Your task to perform on an android device: open app "HBO Max: Stream TV & Movies" (install if not already installed) and enter user name: "faring@outlook.com" and password: "appropriately" Image 0: 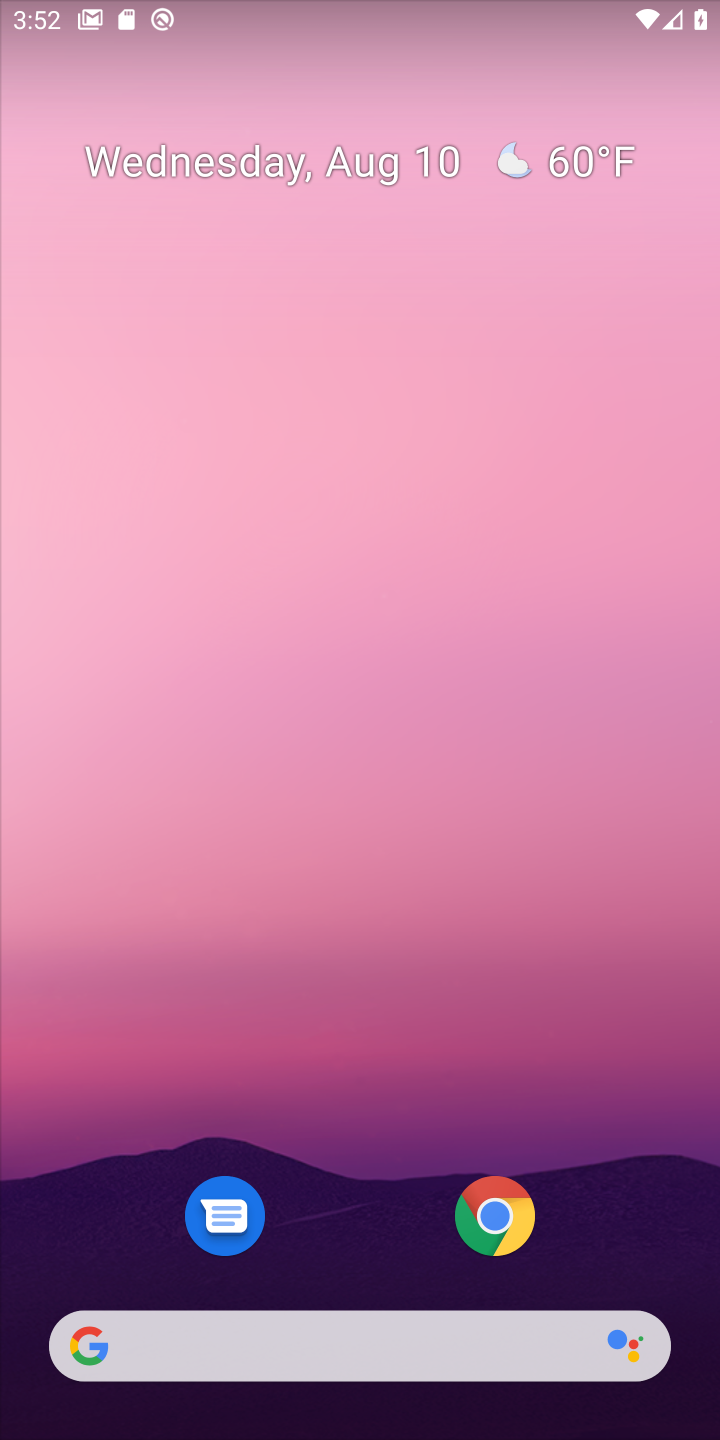
Step 0: drag from (396, 286) to (701, 723)
Your task to perform on an android device: open app "HBO Max: Stream TV & Movies" (install if not already installed) and enter user name: "faring@outlook.com" and password: "appropriately" Image 1: 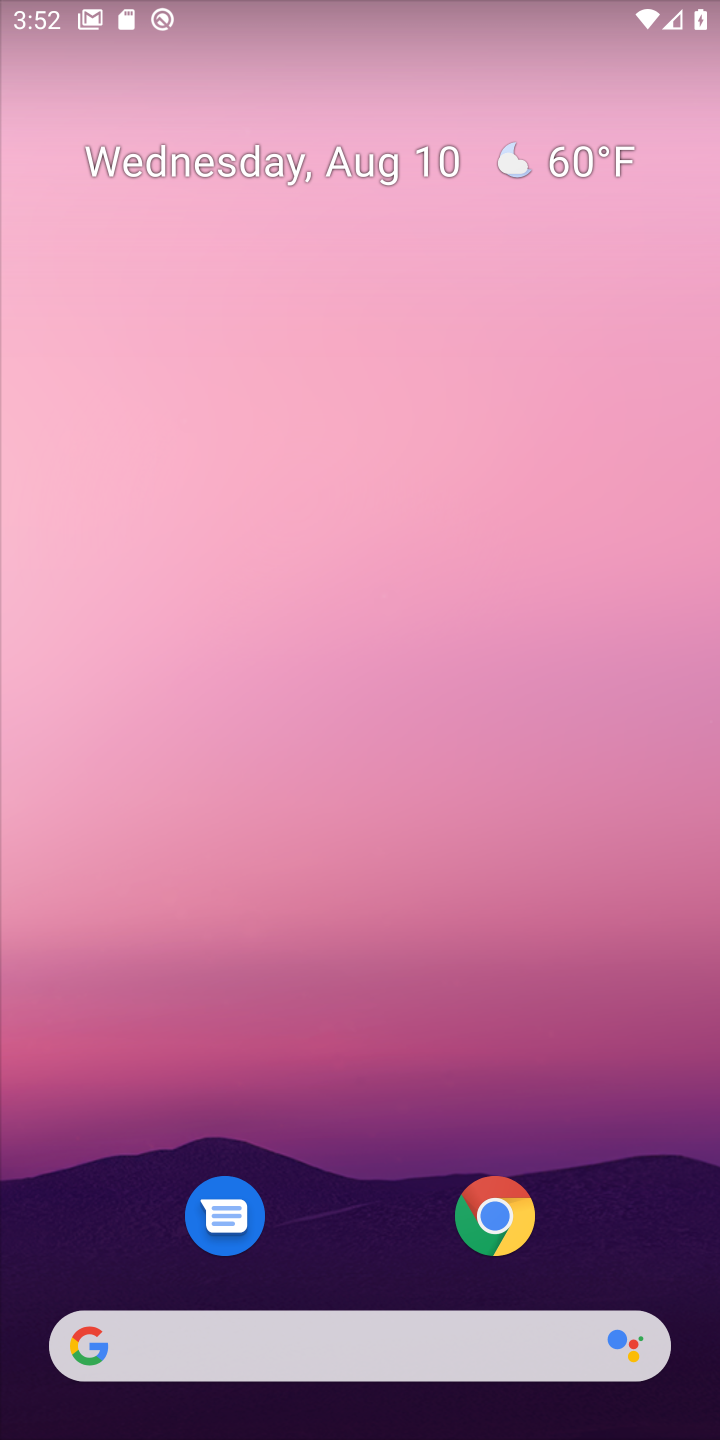
Step 1: drag from (364, 1292) to (709, 859)
Your task to perform on an android device: open app "HBO Max: Stream TV & Movies" (install if not already installed) and enter user name: "faring@outlook.com" and password: "appropriately" Image 2: 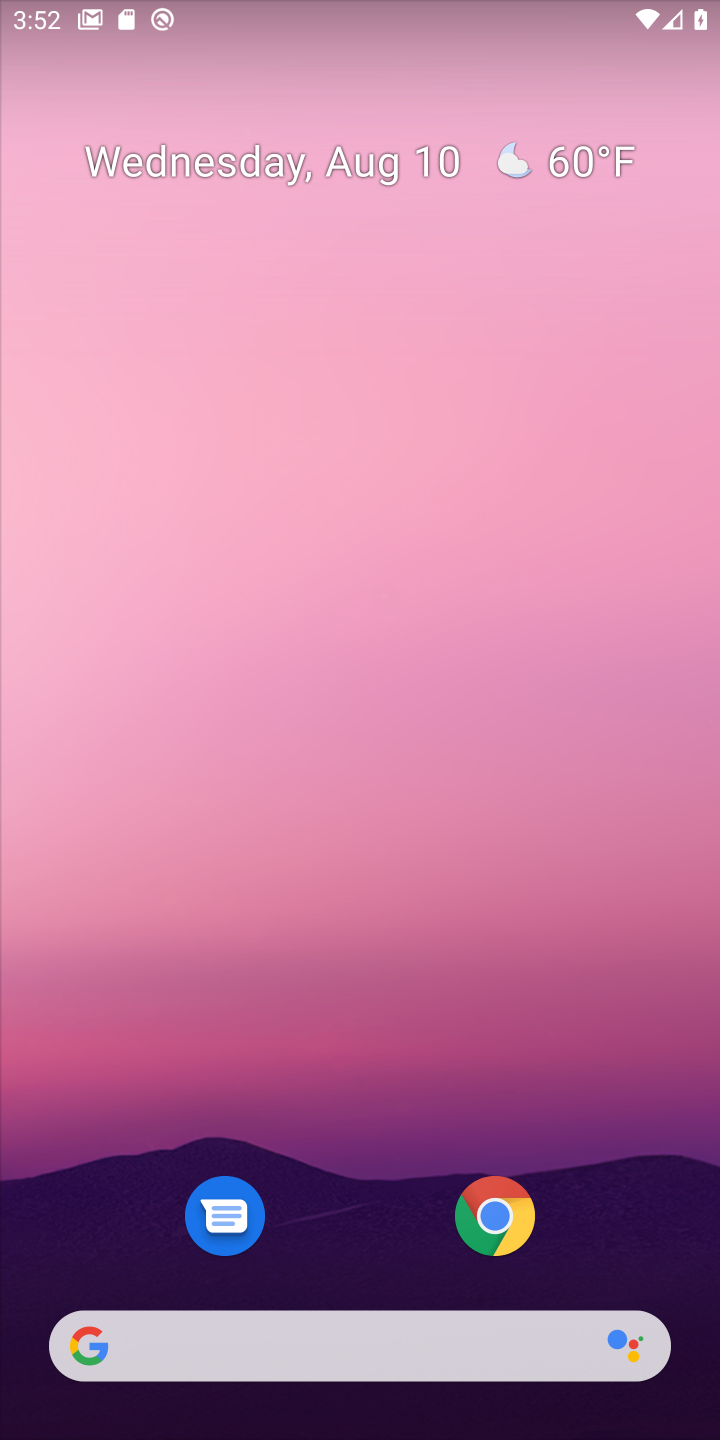
Step 2: drag from (400, 1261) to (302, 180)
Your task to perform on an android device: open app "HBO Max: Stream TV & Movies" (install if not already installed) and enter user name: "faring@outlook.com" and password: "appropriately" Image 3: 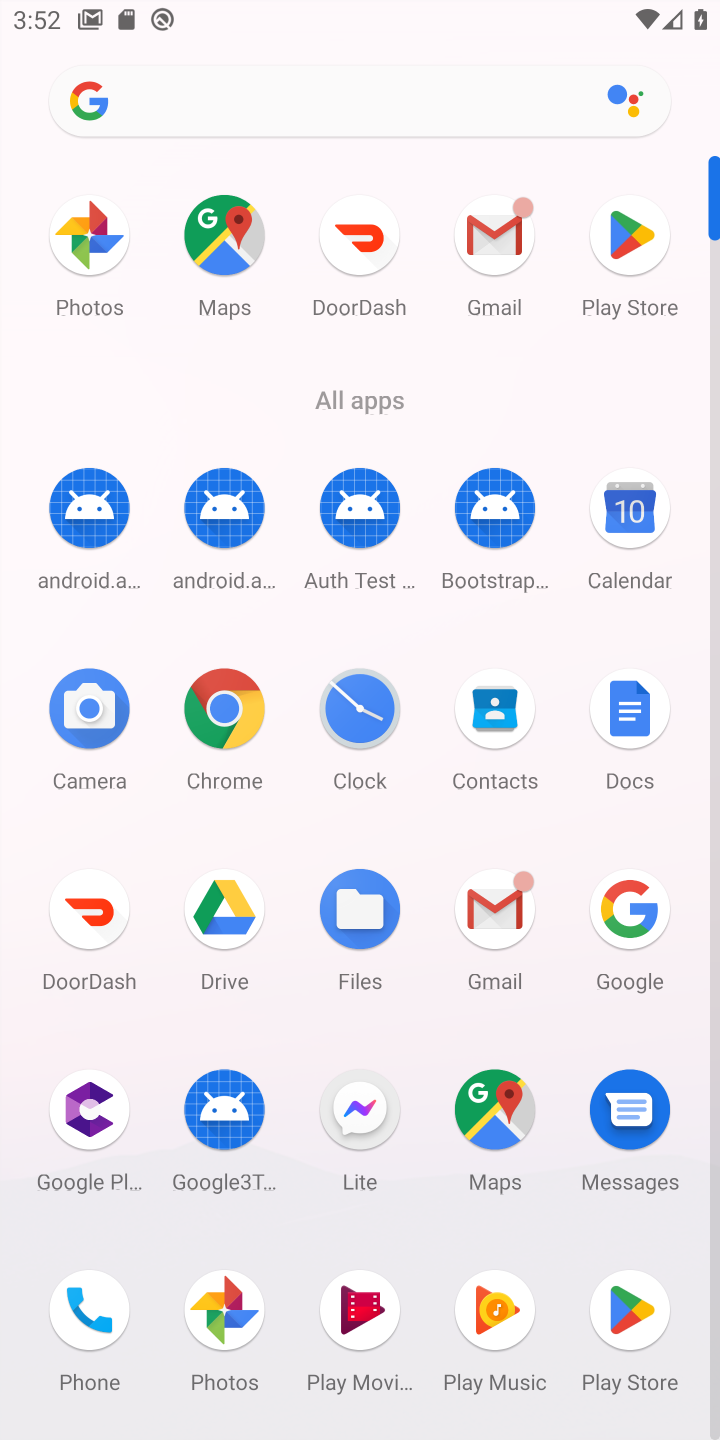
Step 3: click (626, 268)
Your task to perform on an android device: open app "HBO Max: Stream TV & Movies" (install if not already installed) and enter user name: "faring@outlook.com" and password: "appropriately" Image 4: 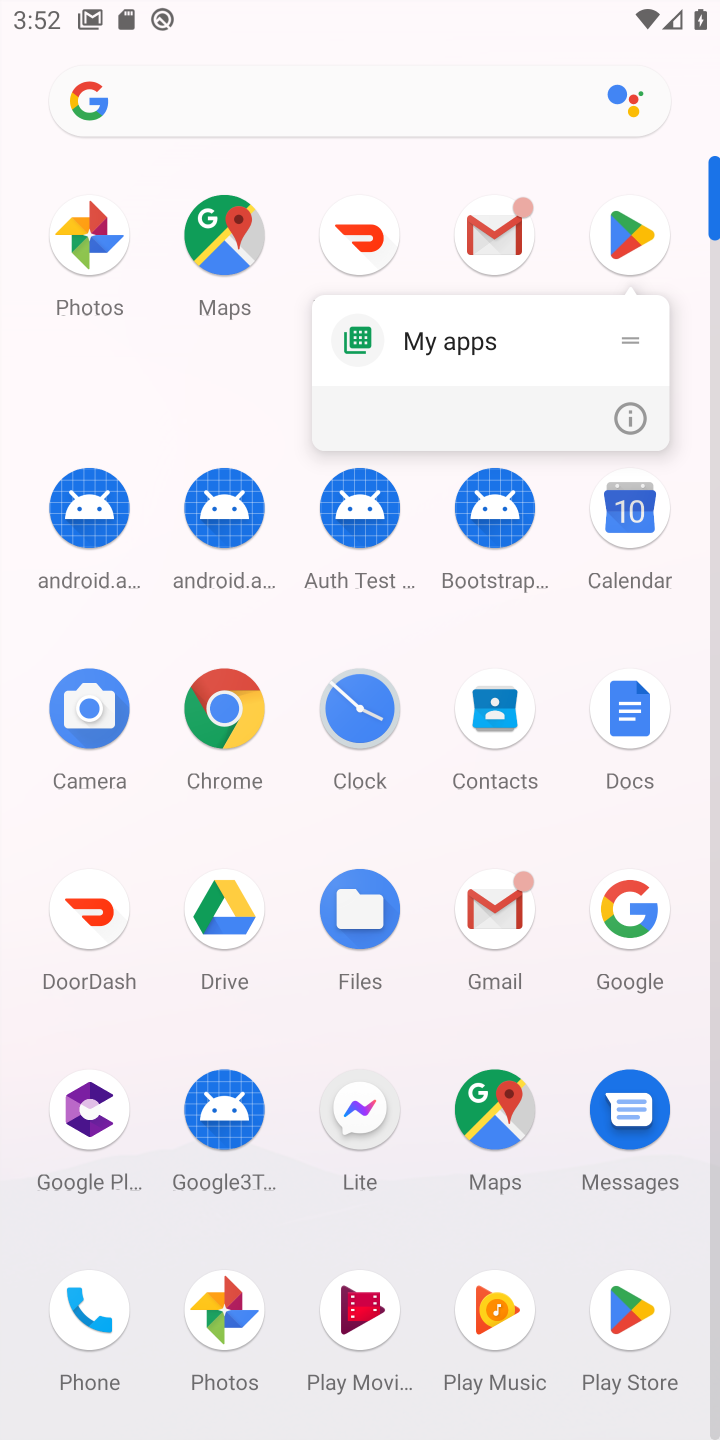
Step 4: click (613, 236)
Your task to perform on an android device: open app "HBO Max: Stream TV & Movies" (install if not already installed) and enter user name: "faring@outlook.com" and password: "appropriately" Image 5: 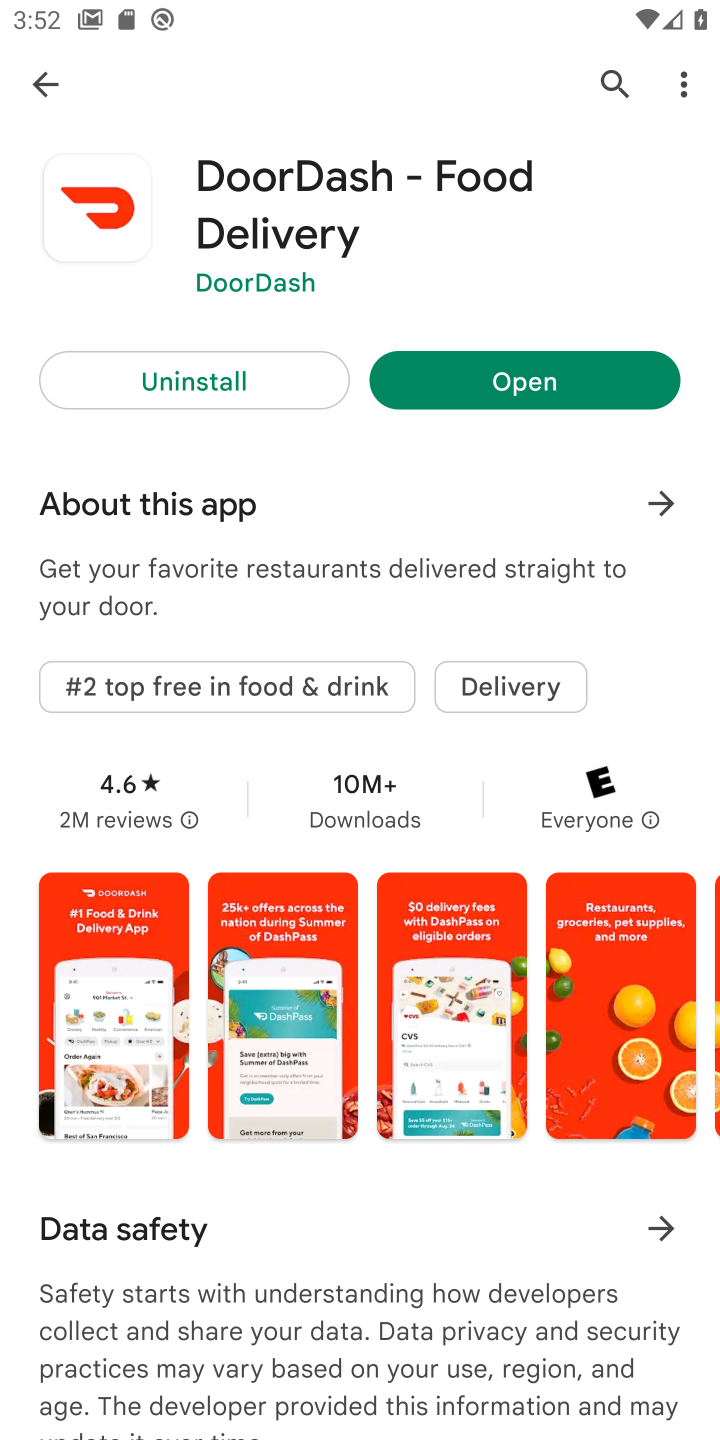
Step 5: click (57, 99)
Your task to perform on an android device: open app "HBO Max: Stream TV & Movies" (install if not already installed) and enter user name: "faring@outlook.com" and password: "appropriately" Image 6: 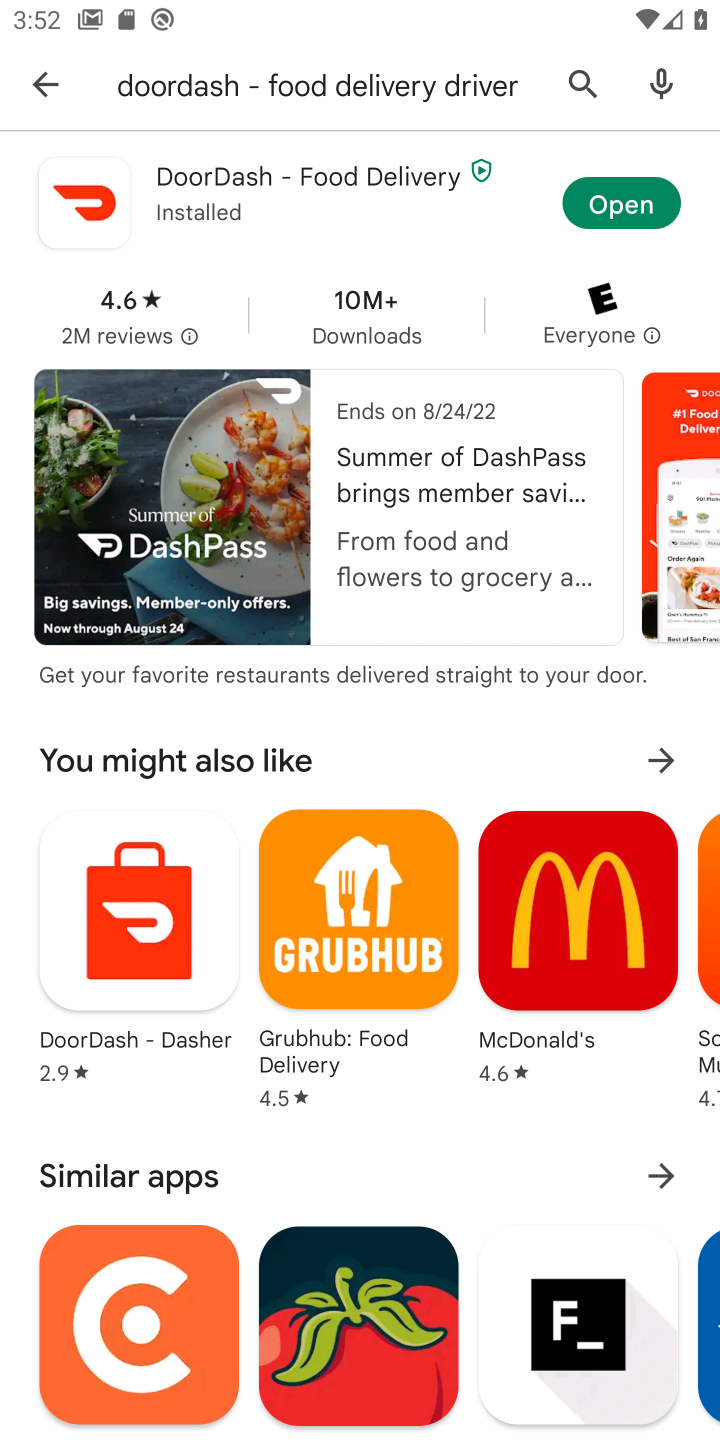
Step 6: click (591, 73)
Your task to perform on an android device: open app "HBO Max: Stream TV & Movies" (install if not already installed) and enter user name: "faring@outlook.com" and password: "appropriately" Image 7: 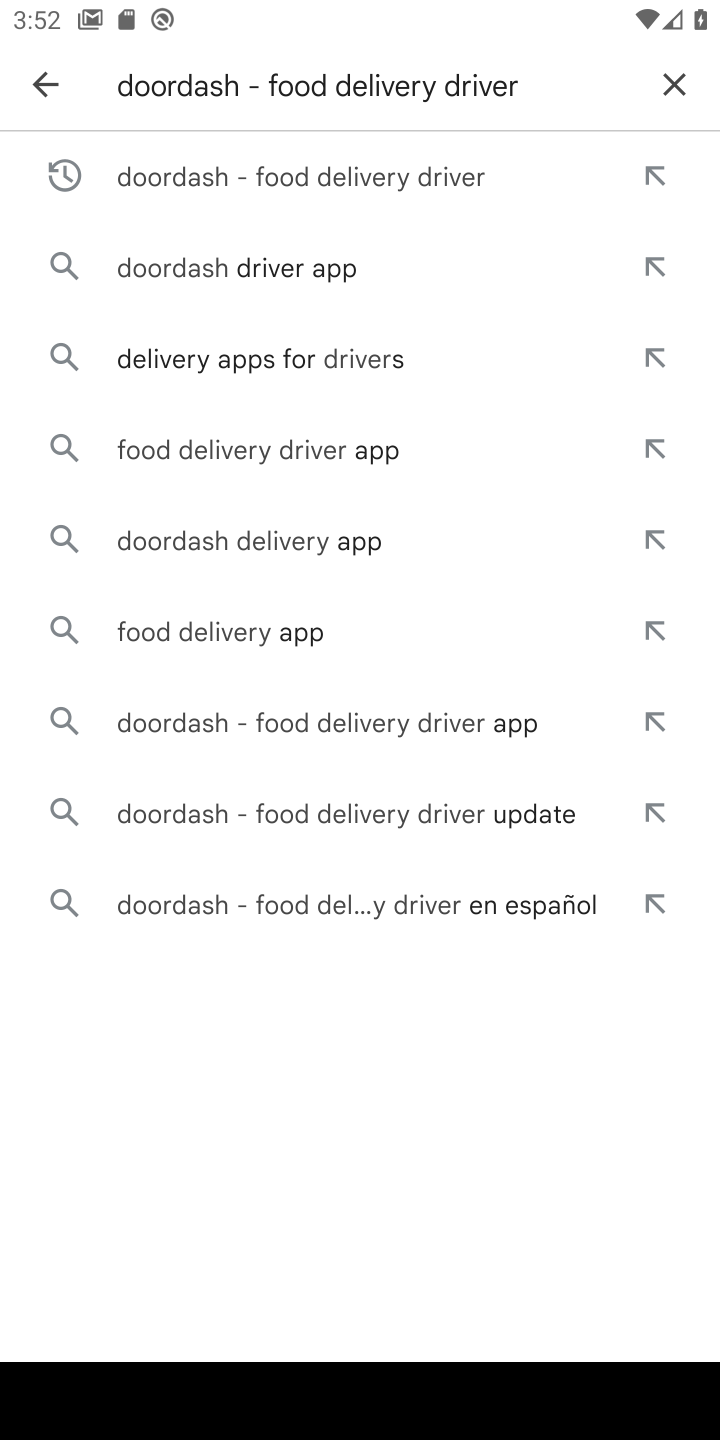
Step 7: click (671, 82)
Your task to perform on an android device: open app "HBO Max: Stream TV & Movies" (install if not already installed) and enter user name: "faring@outlook.com" and password: "appropriately" Image 8: 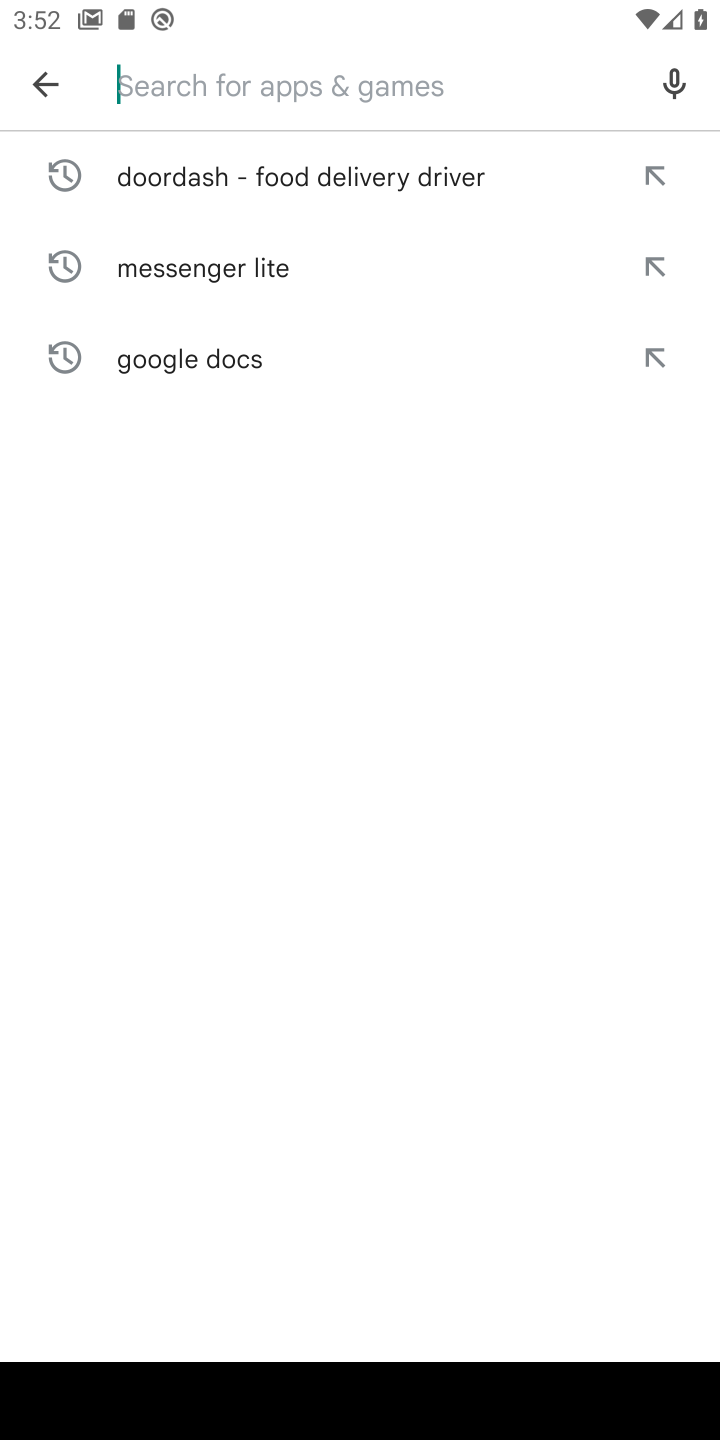
Step 8: type "HBO Max: Stream TV & Movies"
Your task to perform on an android device: open app "HBO Max: Stream TV & Movies" (install if not already installed) and enter user name: "faring@outlook.com" and password: "appropriately" Image 9: 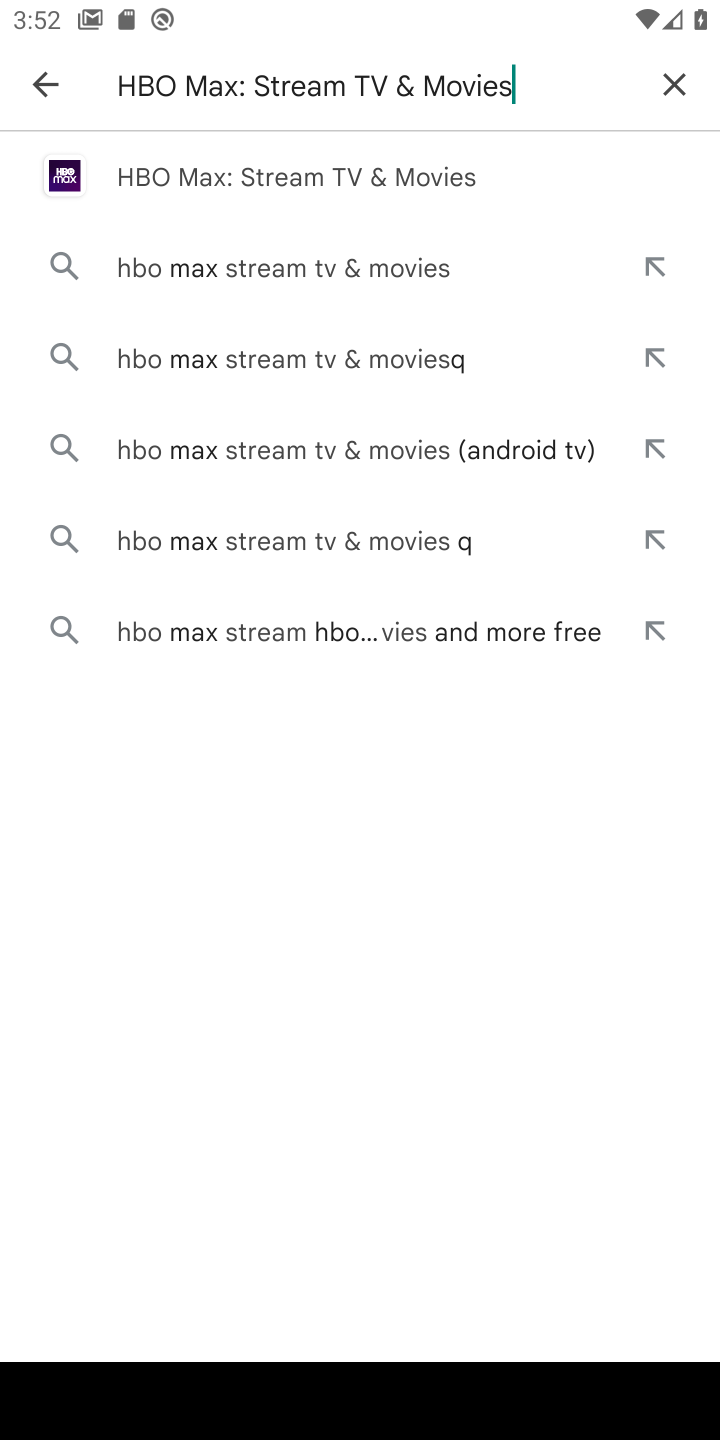
Step 9: click (268, 173)
Your task to perform on an android device: open app "HBO Max: Stream TV & Movies" (install if not already installed) and enter user name: "faring@outlook.com" and password: "appropriately" Image 10: 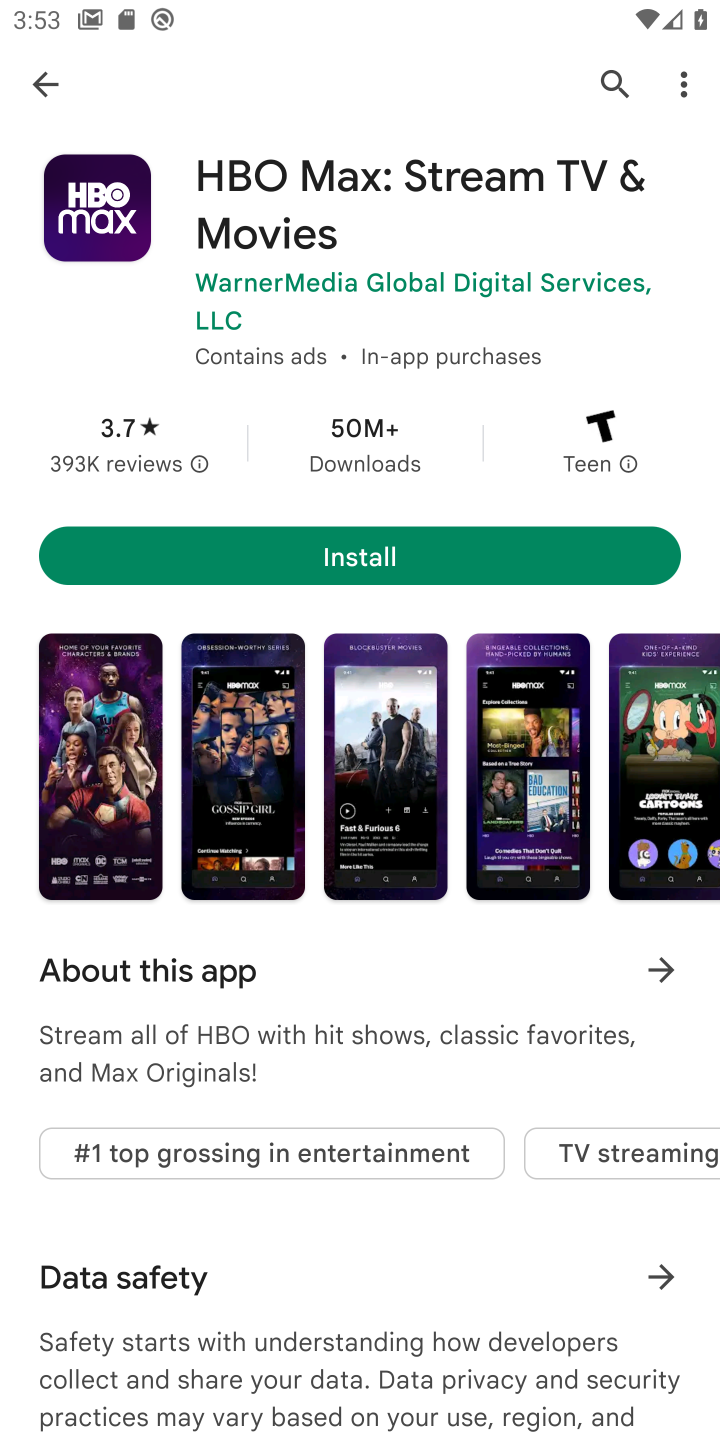
Step 10: click (255, 564)
Your task to perform on an android device: open app "HBO Max: Stream TV & Movies" (install if not already installed) and enter user name: "faring@outlook.com" and password: "appropriately" Image 11: 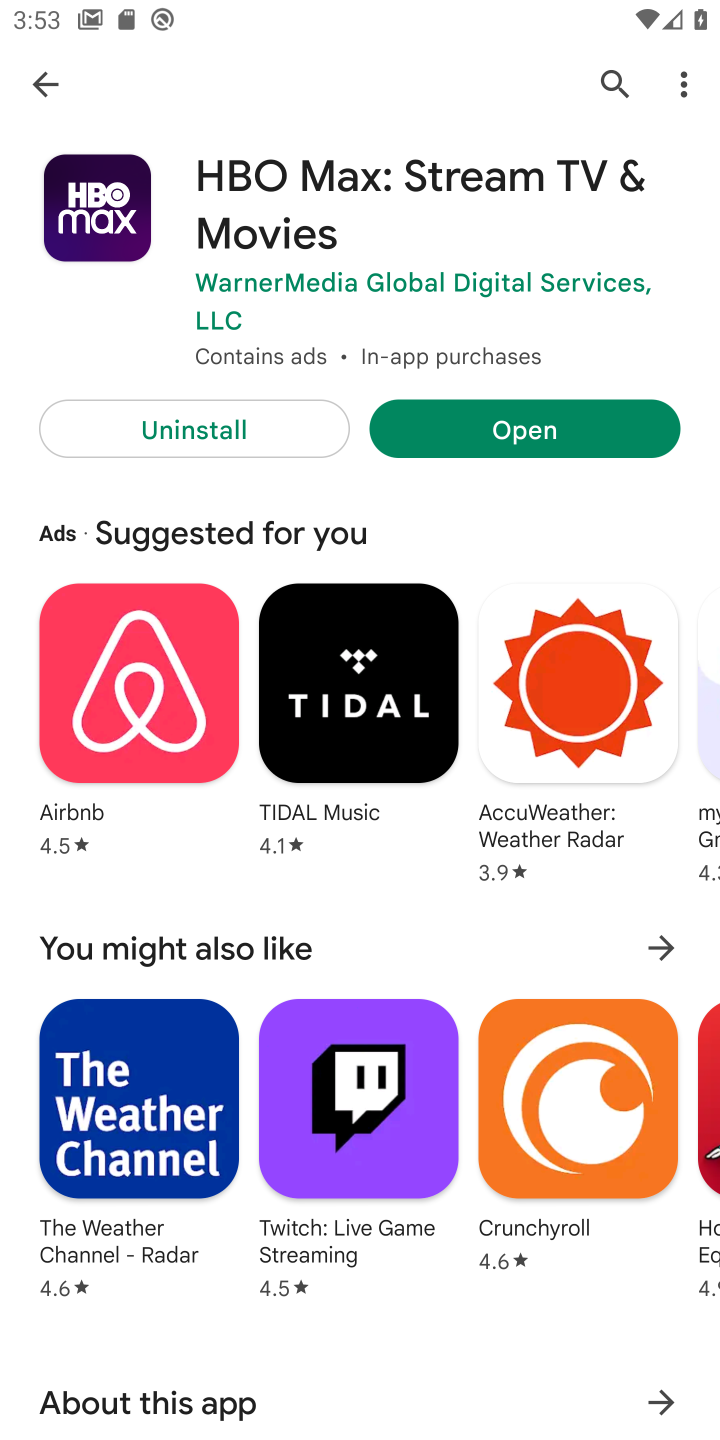
Step 11: click (519, 418)
Your task to perform on an android device: open app "HBO Max: Stream TV & Movies" (install if not already installed) and enter user name: "faring@outlook.com" and password: "appropriately" Image 12: 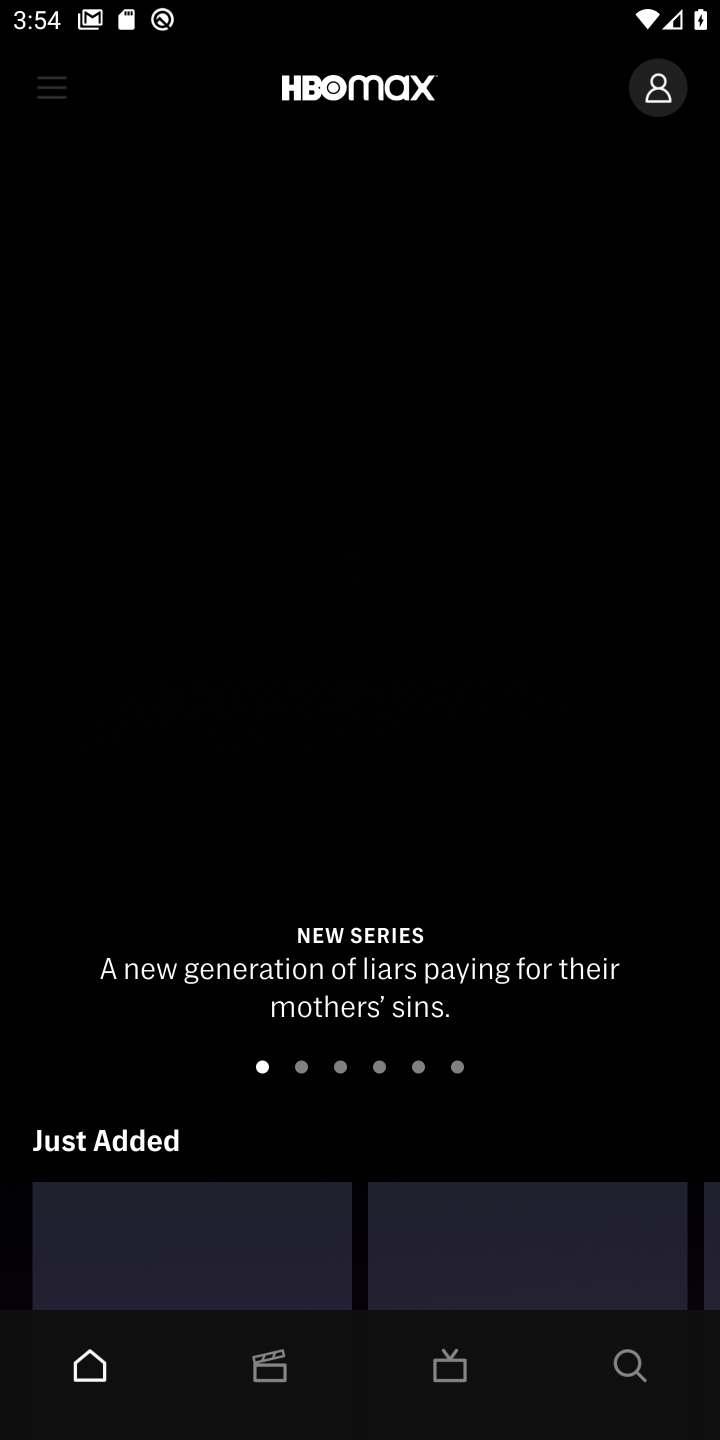
Step 12: click (649, 84)
Your task to perform on an android device: open app "HBO Max: Stream TV & Movies" (install if not already installed) and enter user name: "faring@outlook.com" and password: "appropriately" Image 13: 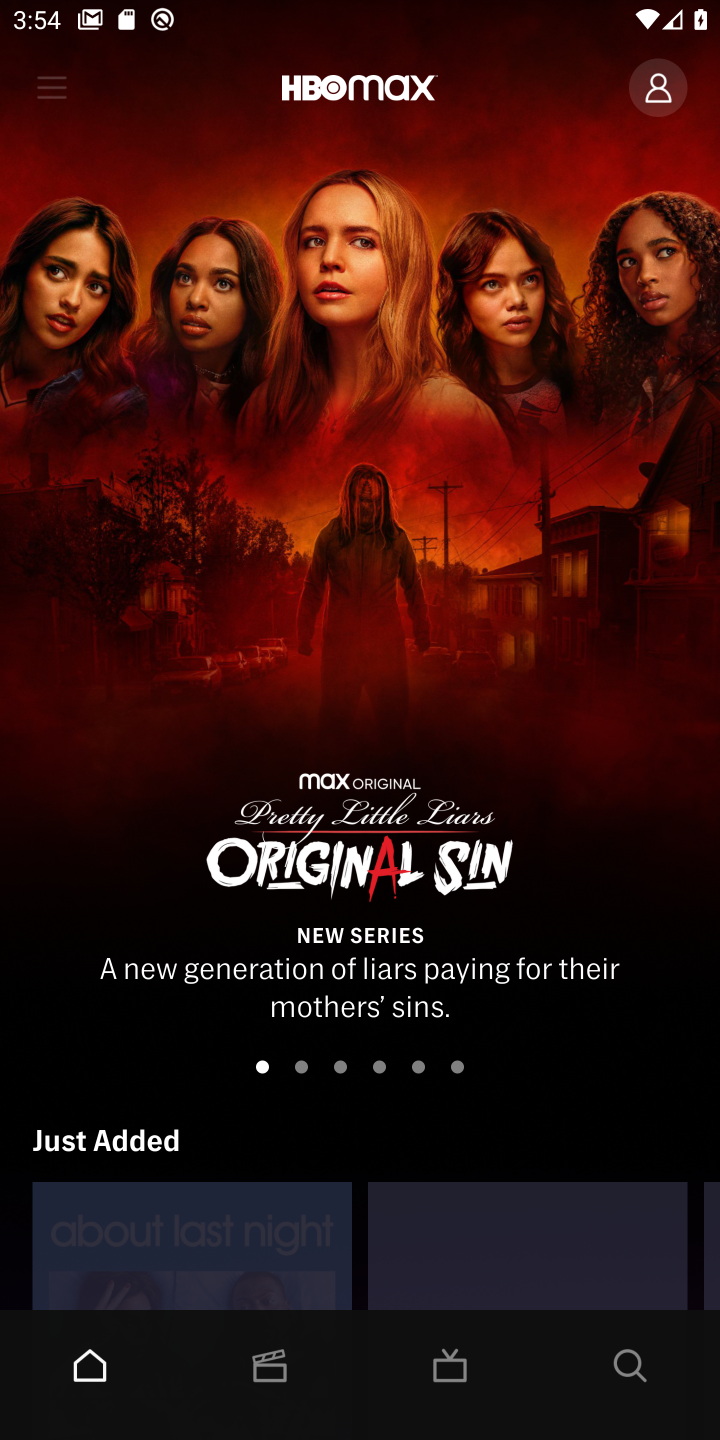
Step 13: click (649, 84)
Your task to perform on an android device: open app "HBO Max: Stream TV & Movies" (install if not already installed) and enter user name: "faring@outlook.com" and password: "appropriately" Image 14: 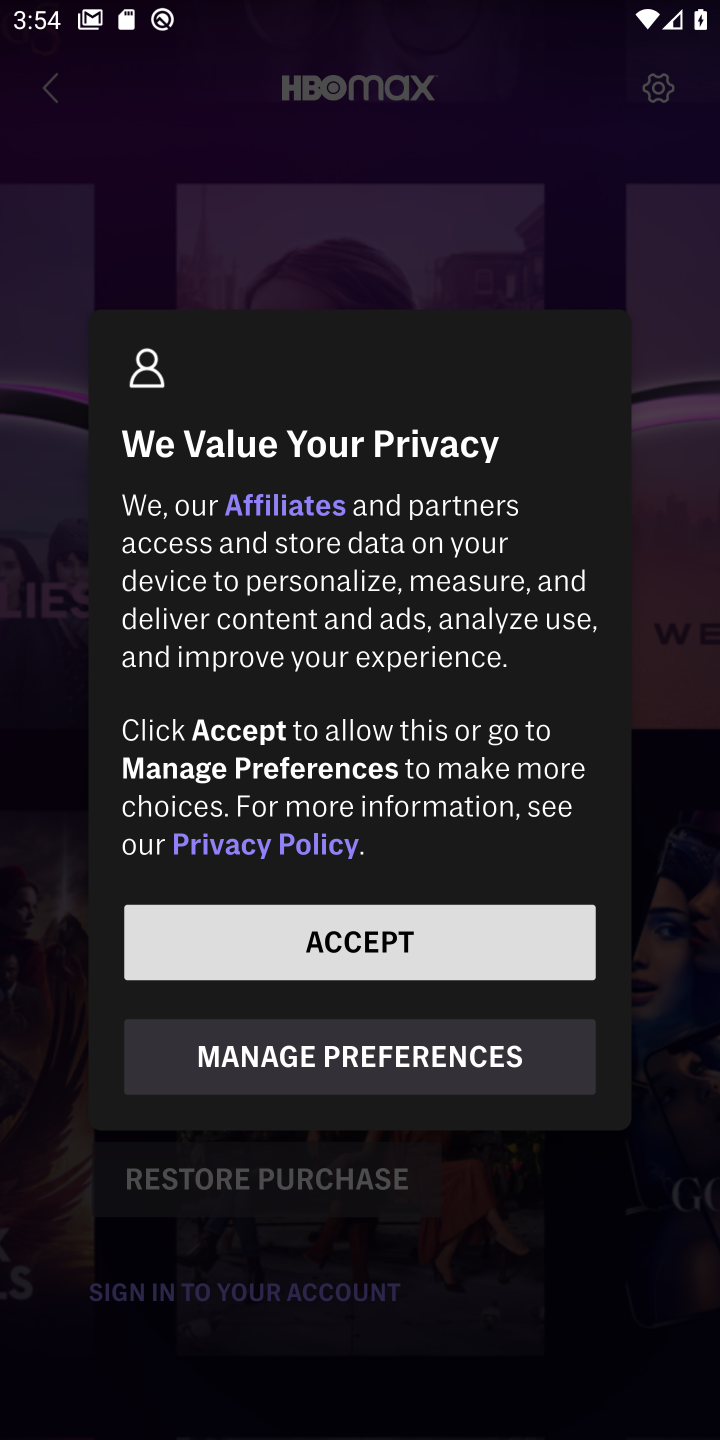
Step 14: click (366, 946)
Your task to perform on an android device: open app "HBO Max: Stream TV & Movies" (install if not already installed) and enter user name: "faring@outlook.com" and password: "appropriately" Image 15: 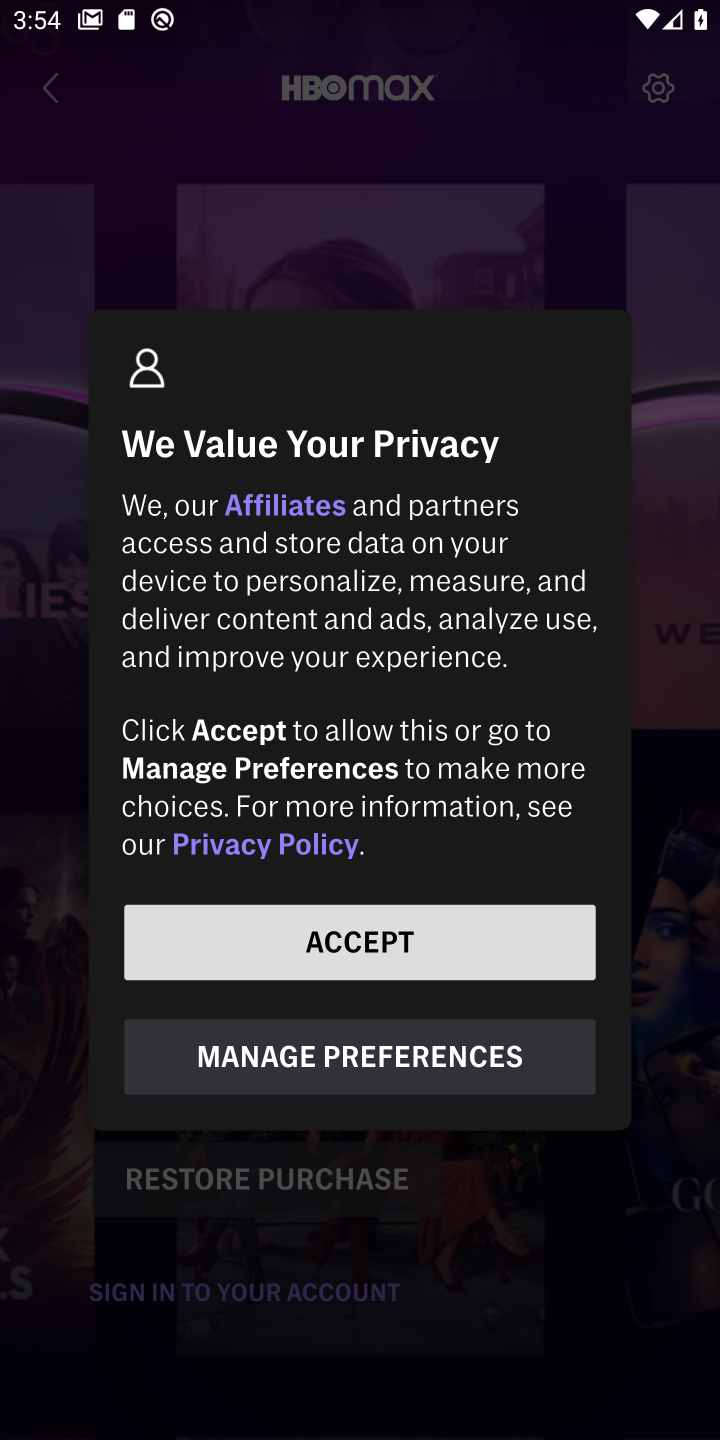
Step 15: click (421, 958)
Your task to perform on an android device: open app "HBO Max: Stream TV & Movies" (install if not already installed) and enter user name: "faring@outlook.com" and password: "appropriately" Image 16: 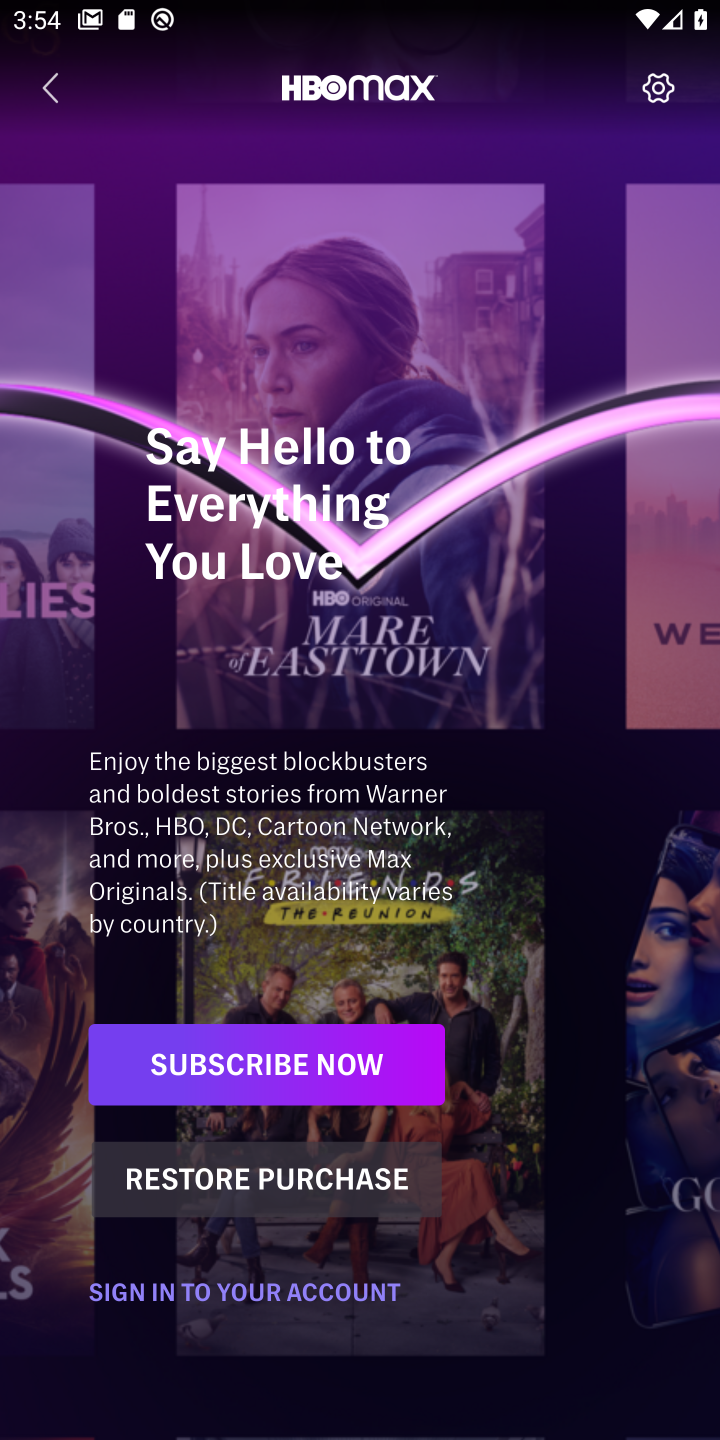
Step 16: click (293, 1305)
Your task to perform on an android device: open app "HBO Max: Stream TV & Movies" (install if not already installed) and enter user name: "faring@outlook.com" and password: "appropriately" Image 17: 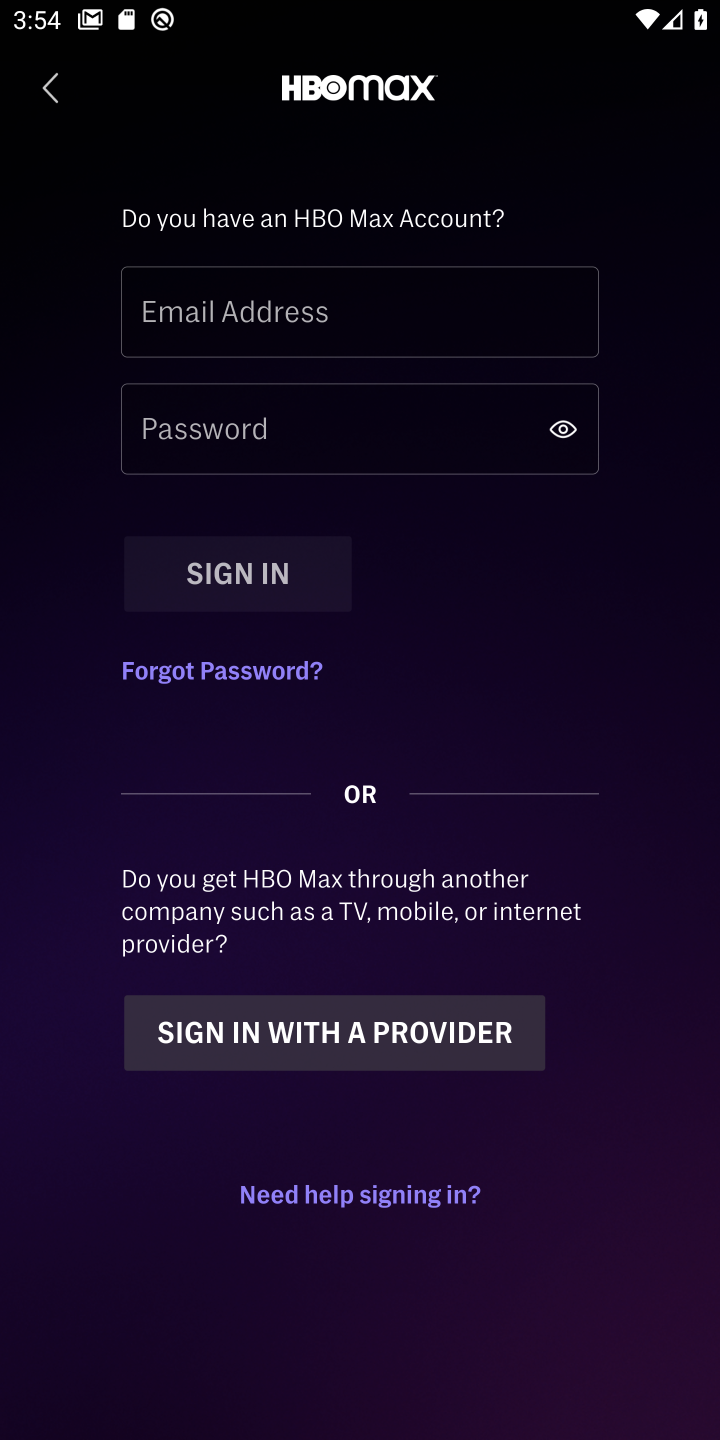
Step 17: click (209, 351)
Your task to perform on an android device: open app "HBO Max: Stream TV & Movies" (install if not already installed) and enter user name: "faring@outlook.com" and password: "appropriately" Image 18: 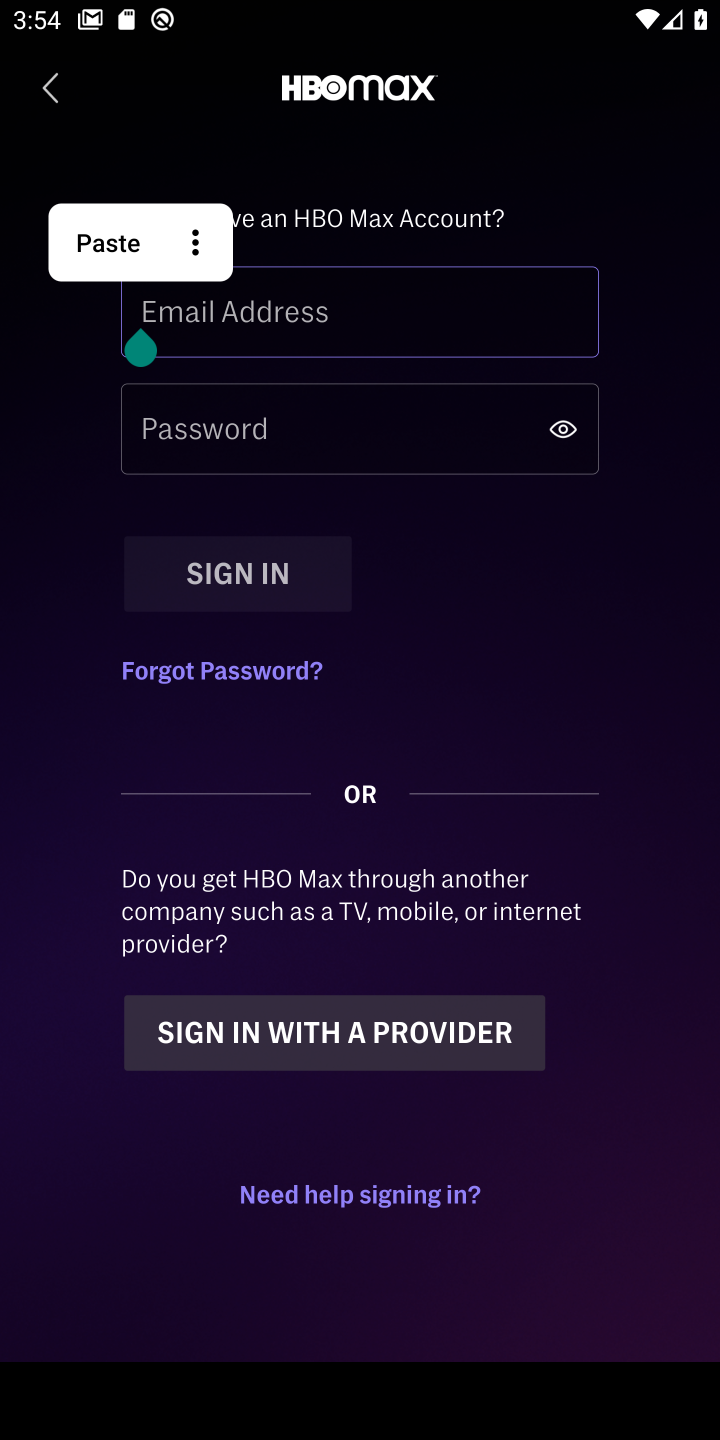
Step 18: type "faring@outlook.com"
Your task to perform on an android device: open app "HBO Max: Stream TV & Movies" (install if not already installed) and enter user name: "faring@outlook.com" and password: "appropriately" Image 19: 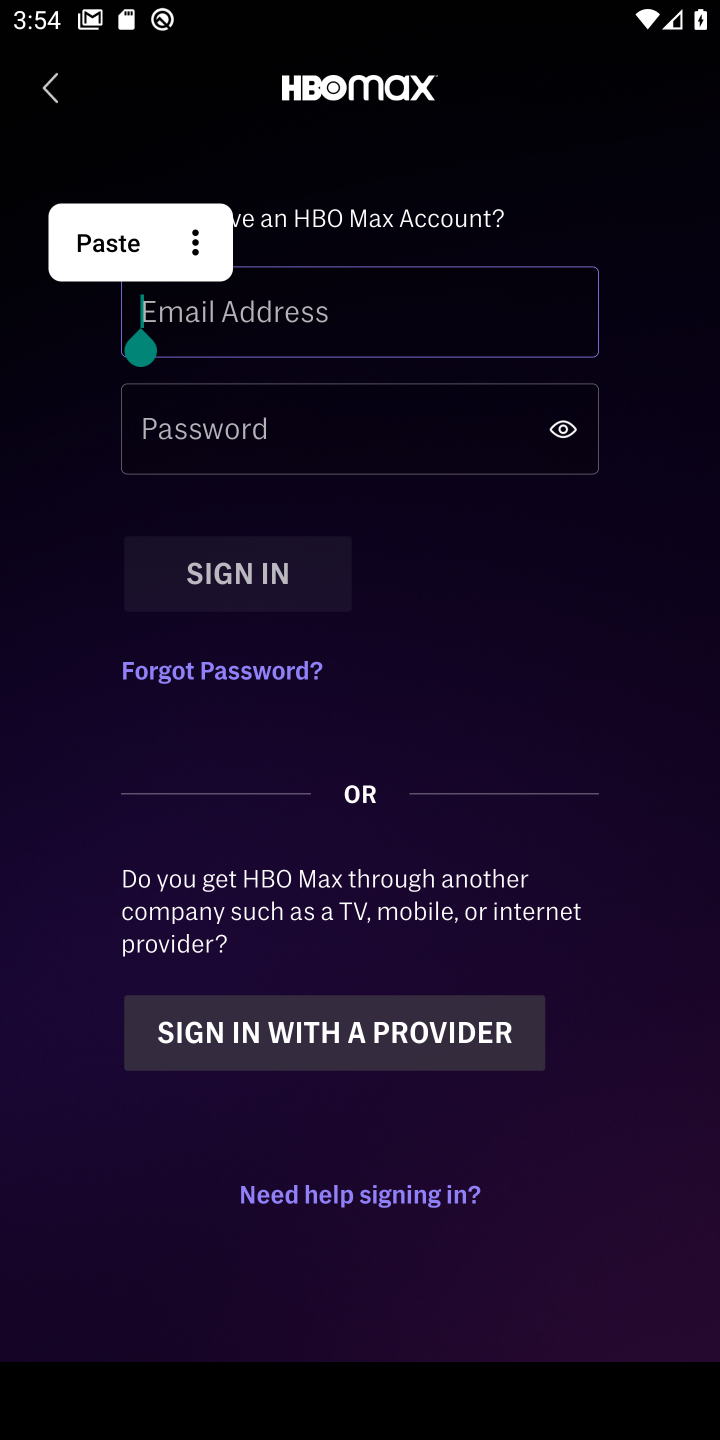
Step 19: click (251, 409)
Your task to perform on an android device: open app "HBO Max: Stream TV & Movies" (install if not already installed) and enter user name: "faring@outlook.com" and password: "appropriately" Image 20: 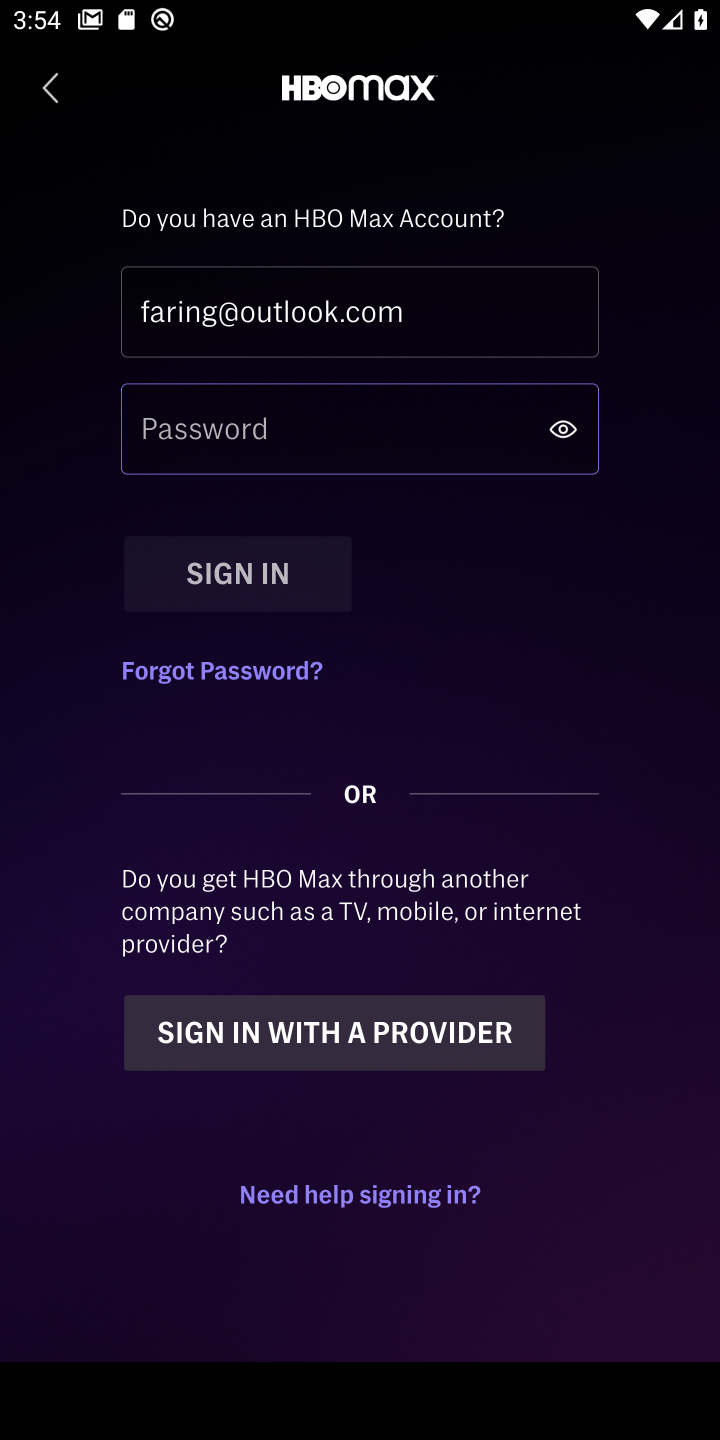
Step 20: type "appropriately"
Your task to perform on an android device: open app "HBO Max: Stream TV & Movies" (install if not already installed) and enter user name: "faring@outlook.com" and password: "appropriately" Image 21: 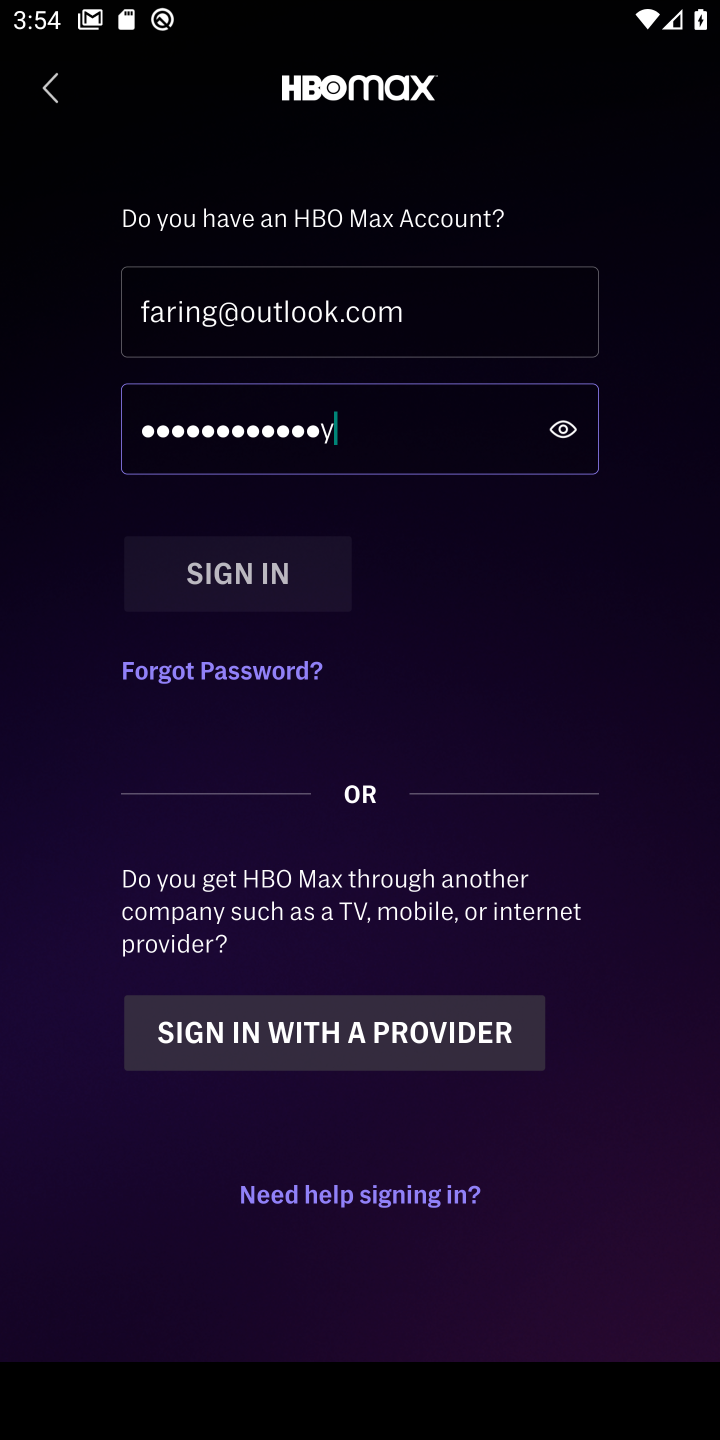
Step 21: task complete